Your task to perform on an android device: Open Google Maps Image 0: 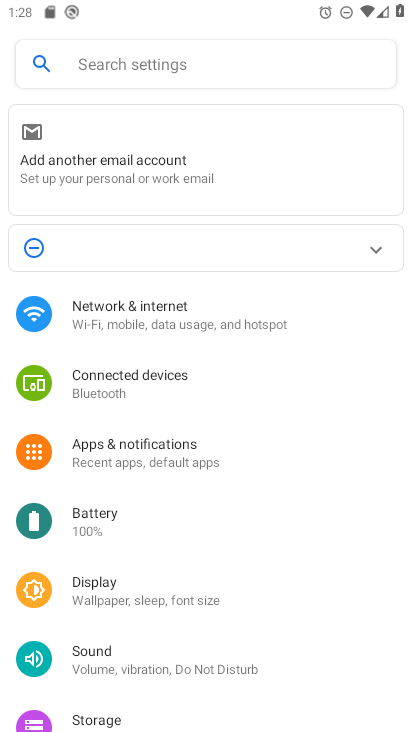
Step 0: press home button
Your task to perform on an android device: Open Google Maps Image 1: 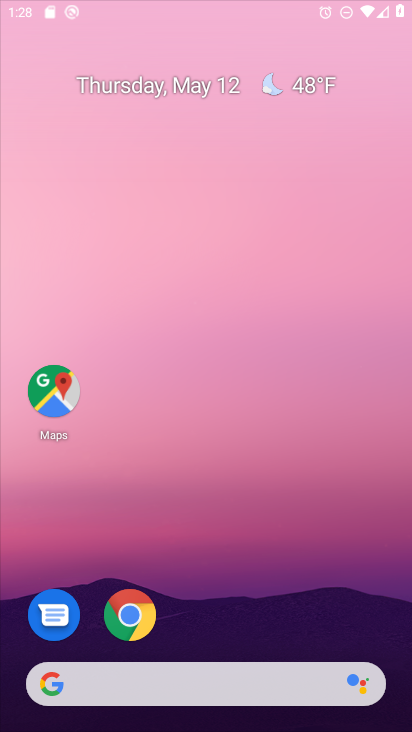
Step 1: drag from (236, 658) to (363, 11)
Your task to perform on an android device: Open Google Maps Image 2: 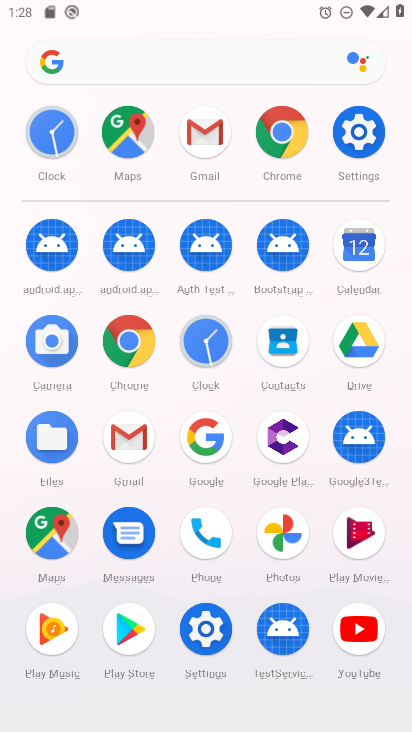
Step 2: click (49, 534)
Your task to perform on an android device: Open Google Maps Image 3: 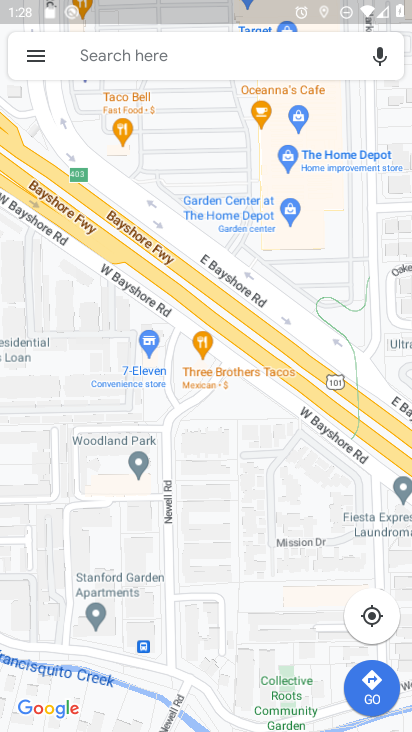
Step 3: task complete